Your task to perform on an android device: see sites visited before in the chrome app Image 0: 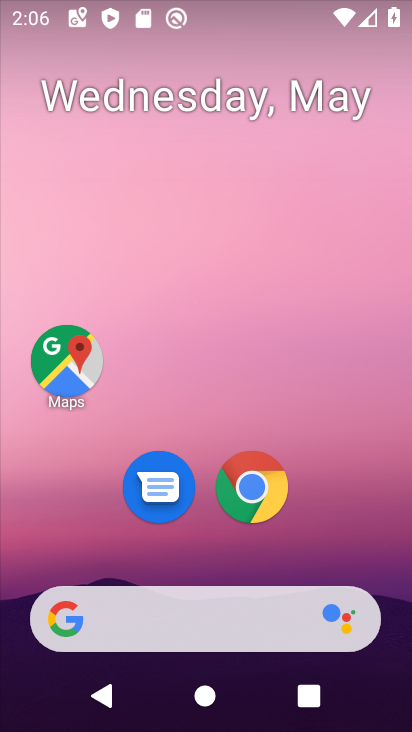
Step 0: drag from (368, 523) to (221, 56)
Your task to perform on an android device: see sites visited before in the chrome app Image 1: 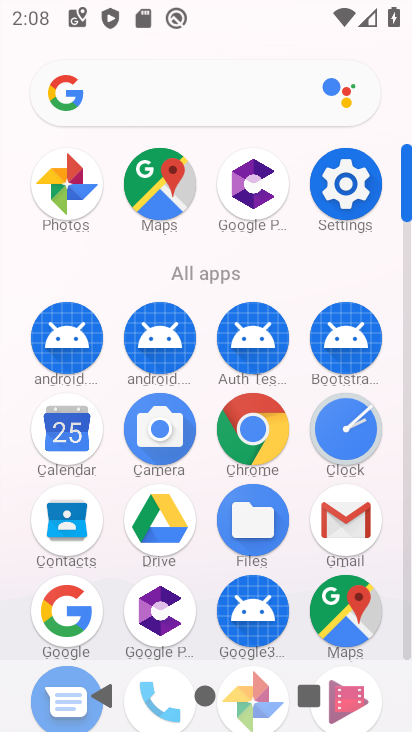
Step 1: click (251, 449)
Your task to perform on an android device: see sites visited before in the chrome app Image 2: 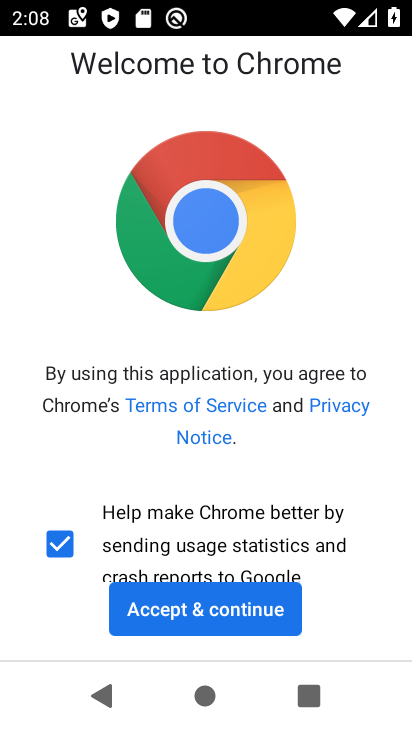
Step 2: click (263, 608)
Your task to perform on an android device: see sites visited before in the chrome app Image 3: 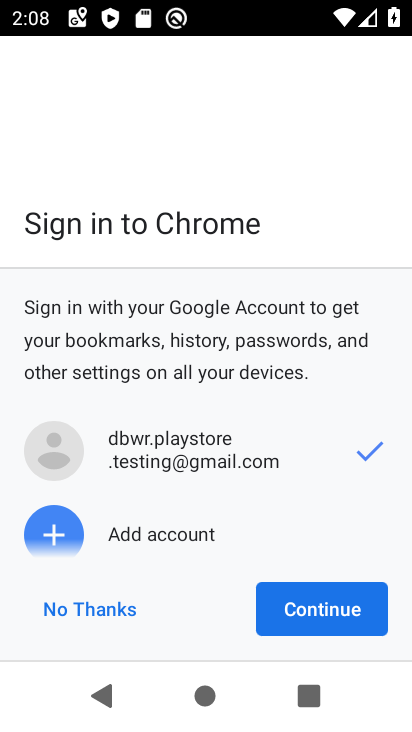
Step 3: click (146, 580)
Your task to perform on an android device: see sites visited before in the chrome app Image 4: 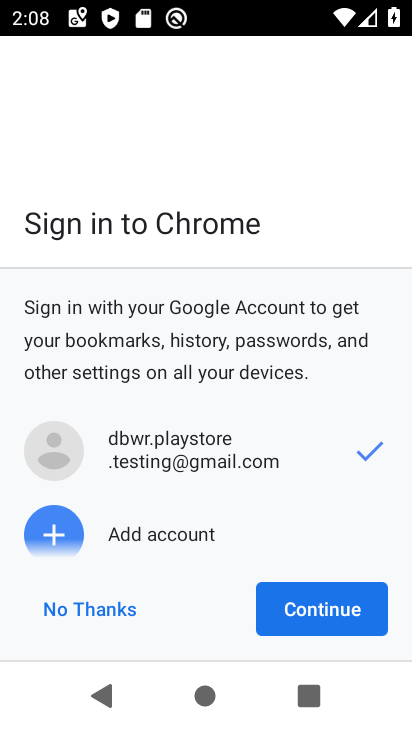
Step 4: click (112, 579)
Your task to perform on an android device: see sites visited before in the chrome app Image 5: 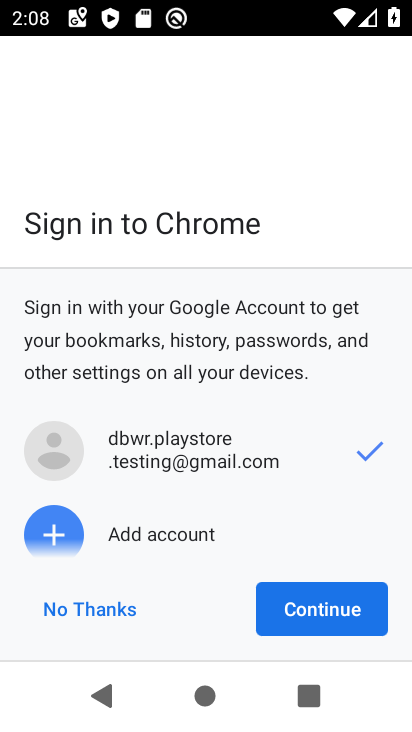
Step 5: click (43, 619)
Your task to perform on an android device: see sites visited before in the chrome app Image 6: 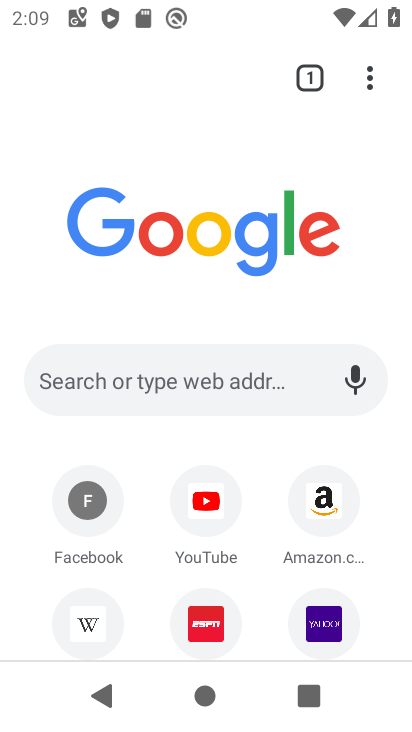
Step 6: drag from (365, 68) to (119, 358)
Your task to perform on an android device: see sites visited before in the chrome app Image 7: 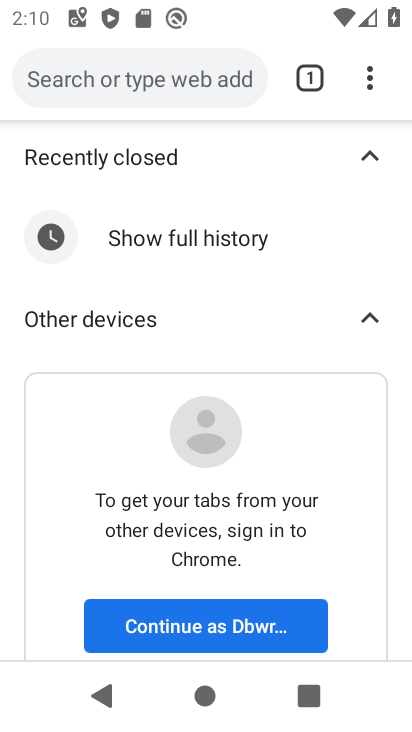
Step 7: click (234, 636)
Your task to perform on an android device: see sites visited before in the chrome app Image 8: 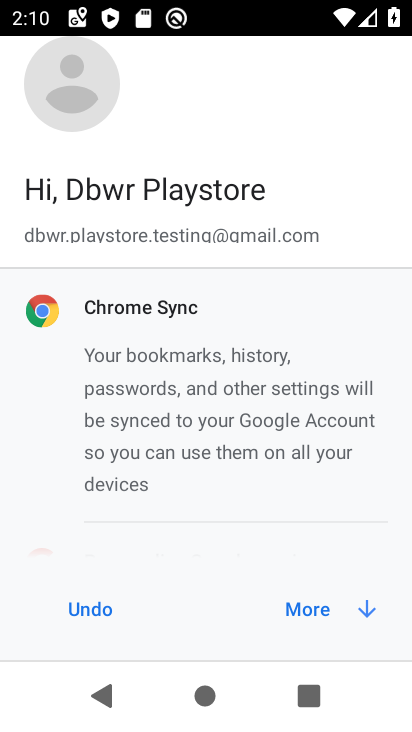
Step 8: task complete